Your task to perform on an android device: change alarm snooze length Image 0: 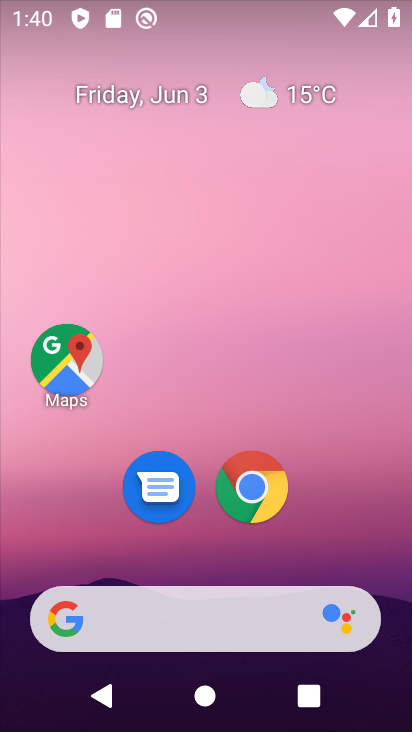
Step 0: drag from (328, 380) to (173, 0)
Your task to perform on an android device: change alarm snooze length Image 1: 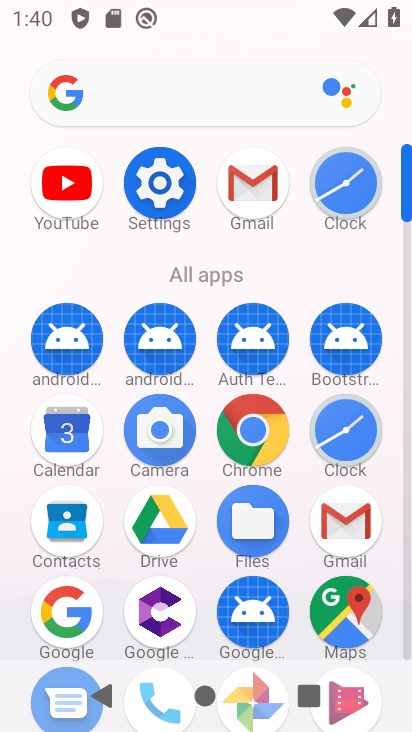
Step 1: click (345, 168)
Your task to perform on an android device: change alarm snooze length Image 2: 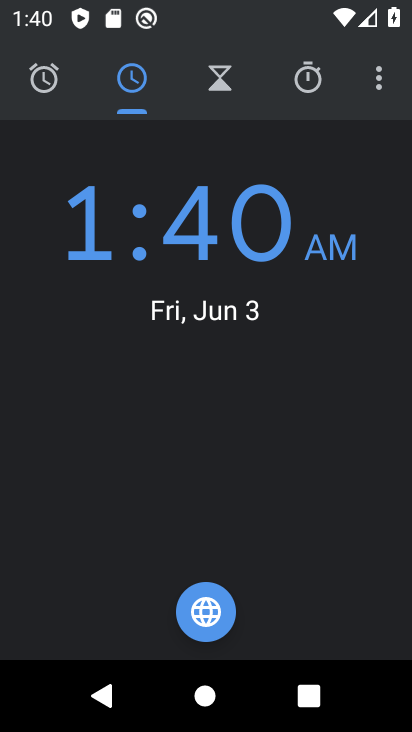
Step 2: click (376, 76)
Your task to perform on an android device: change alarm snooze length Image 3: 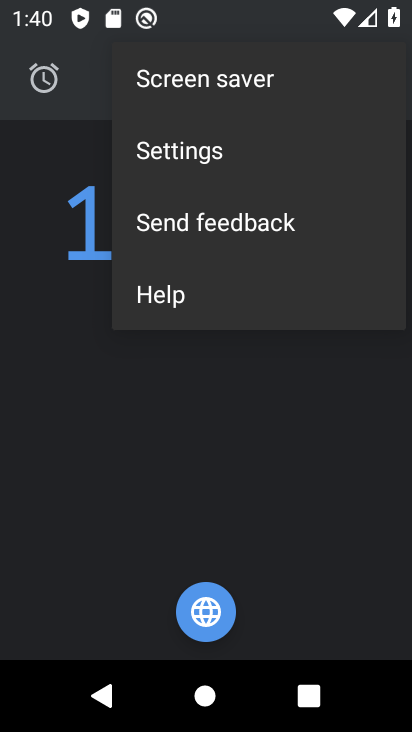
Step 3: click (199, 149)
Your task to perform on an android device: change alarm snooze length Image 4: 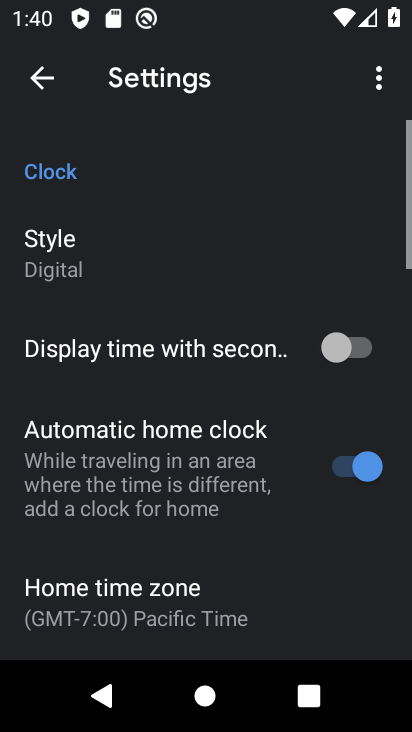
Step 4: drag from (176, 563) to (163, 63)
Your task to perform on an android device: change alarm snooze length Image 5: 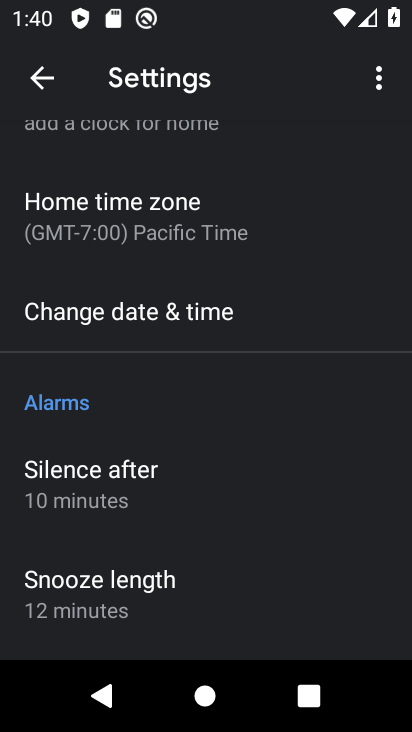
Step 5: click (174, 588)
Your task to perform on an android device: change alarm snooze length Image 6: 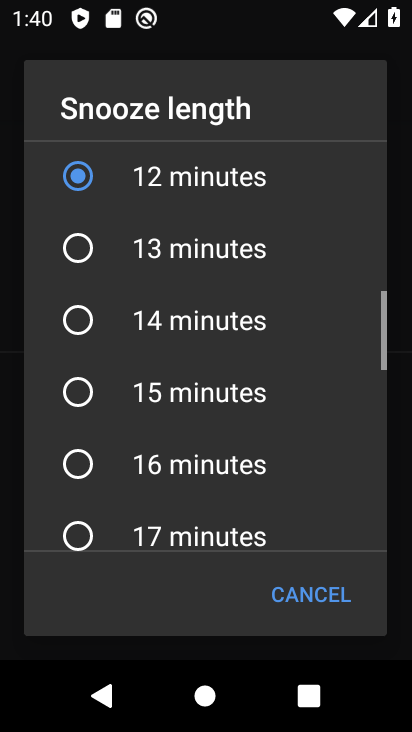
Step 6: click (201, 391)
Your task to perform on an android device: change alarm snooze length Image 7: 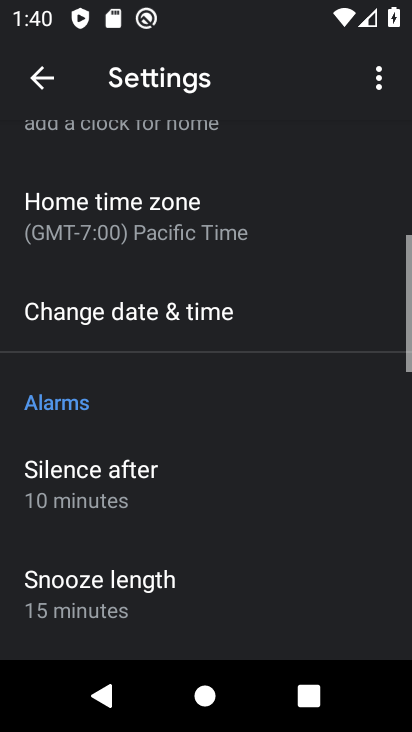
Step 7: task complete